Your task to perform on an android device: open app "Skype" (install if not already installed) and go to login screen Image 0: 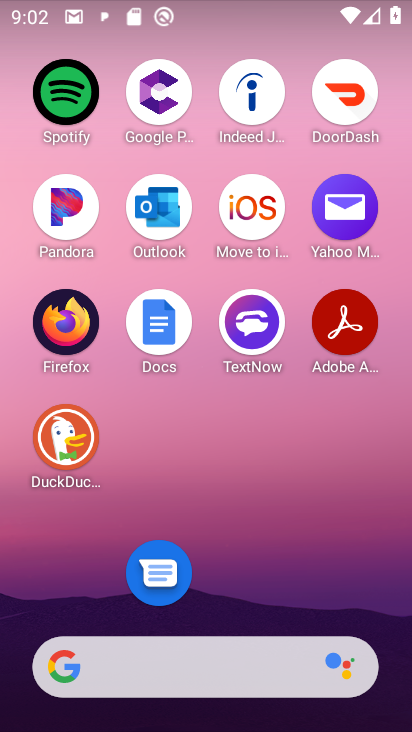
Step 0: drag from (230, 586) to (267, 217)
Your task to perform on an android device: open app "Skype" (install if not already installed) and go to login screen Image 1: 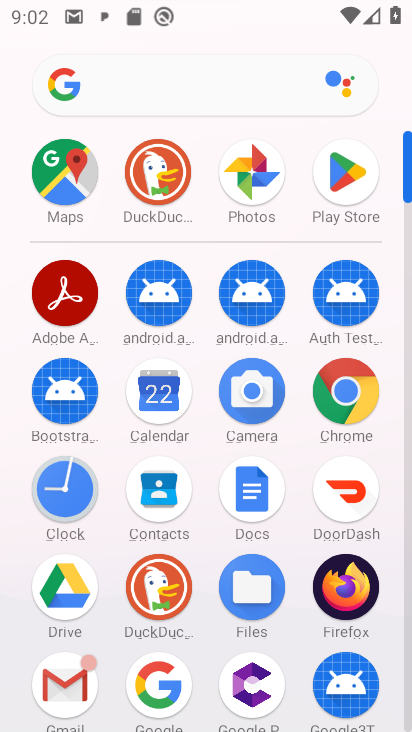
Step 1: click (369, 176)
Your task to perform on an android device: open app "Skype" (install if not already installed) and go to login screen Image 2: 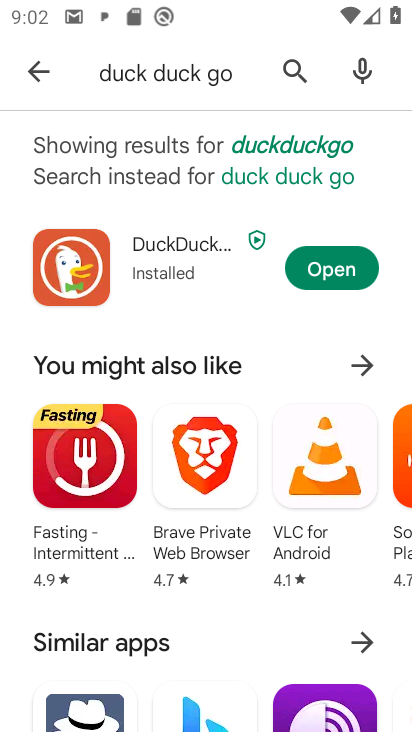
Step 2: click (143, 74)
Your task to perform on an android device: open app "Skype" (install if not already installed) and go to login screen Image 3: 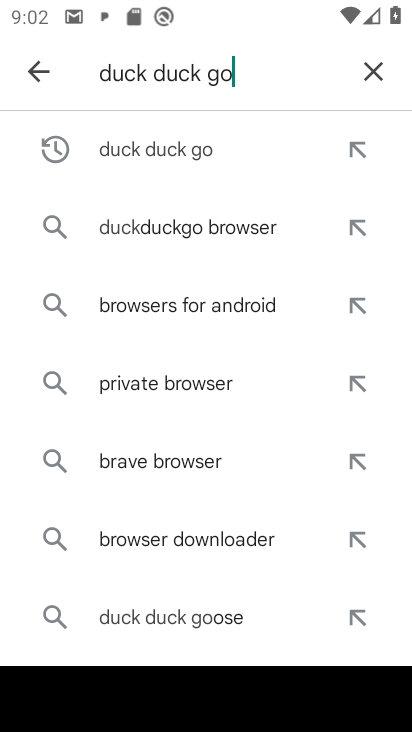
Step 3: click (369, 72)
Your task to perform on an android device: open app "Skype" (install if not already installed) and go to login screen Image 4: 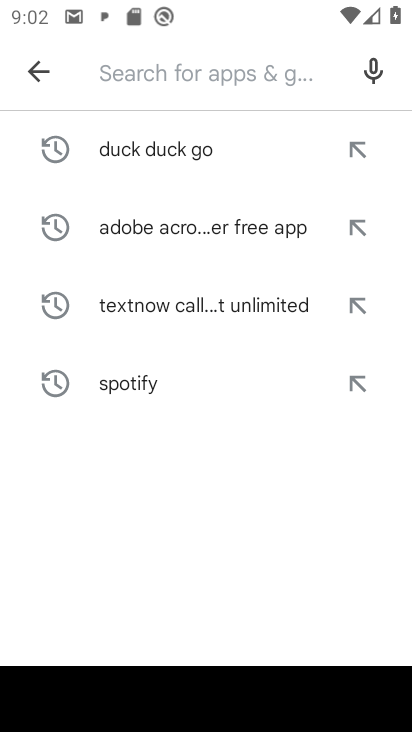
Step 4: type "Skype"
Your task to perform on an android device: open app "Skype" (install if not already installed) and go to login screen Image 5: 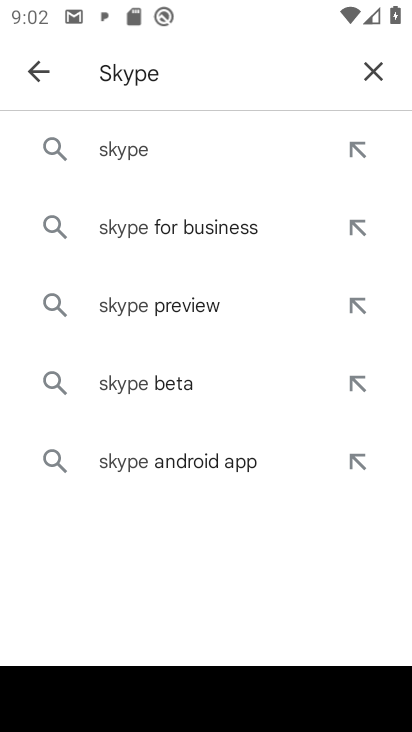
Step 5: click (150, 150)
Your task to perform on an android device: open app "Skype" (install if not already installed) and go to login screen Image 6: 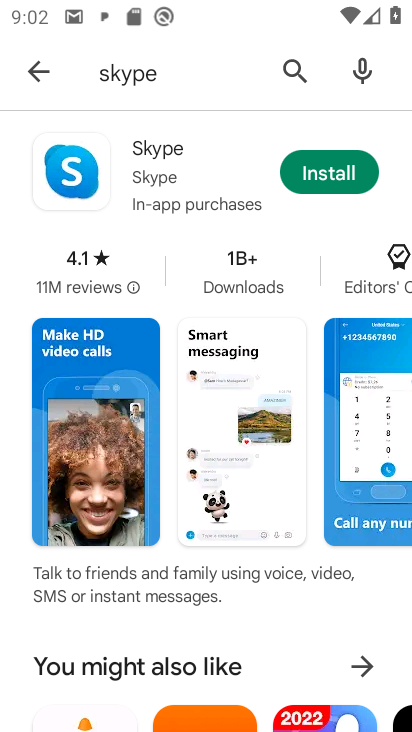
Step 6: click (325, 172)
Your task to perform on an android device: open app "Skype" (install if not already installed) and go to login screen Image 7: 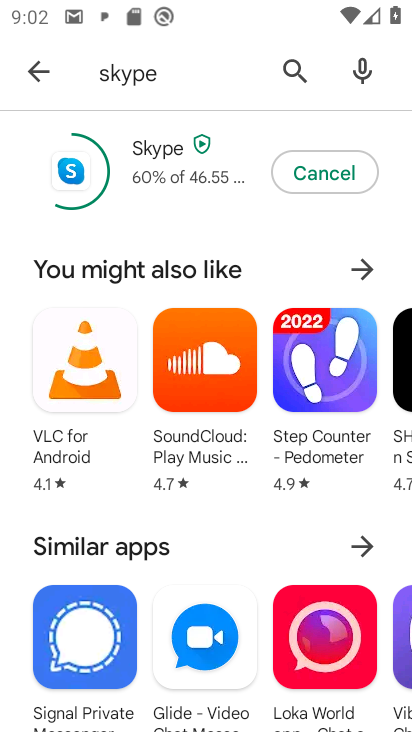
Step 7: drag from (80, 163) to (220, 278)
Your task to perform on an android device: open app "Skype" (install if not already installed) and go to login screen Image 8: 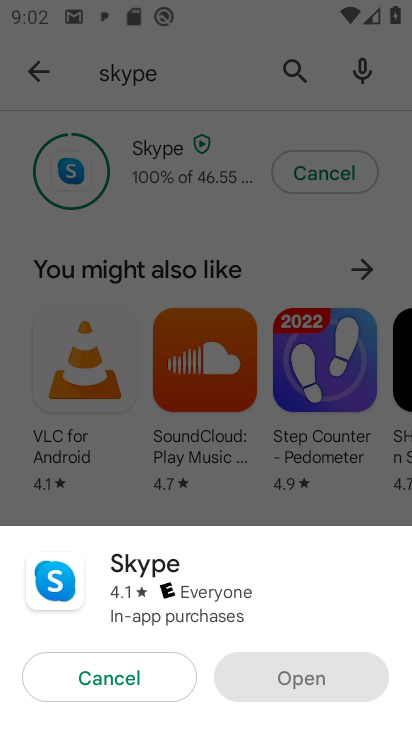
Step 8: click (128, 221)
Your task to perform on an android device: open app "Skype" (install if not already installed) and go to login screen Image 9: 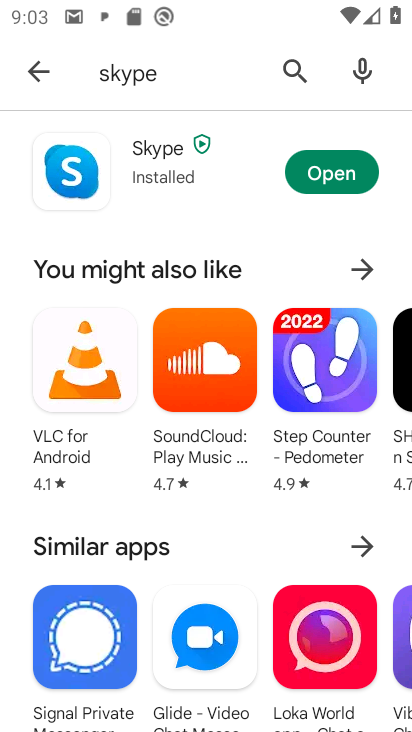
Step 9: click (332, 174)
Your task to perform on an android device: open app "Skype" (install if not already installed) and go to login screen Image 10: 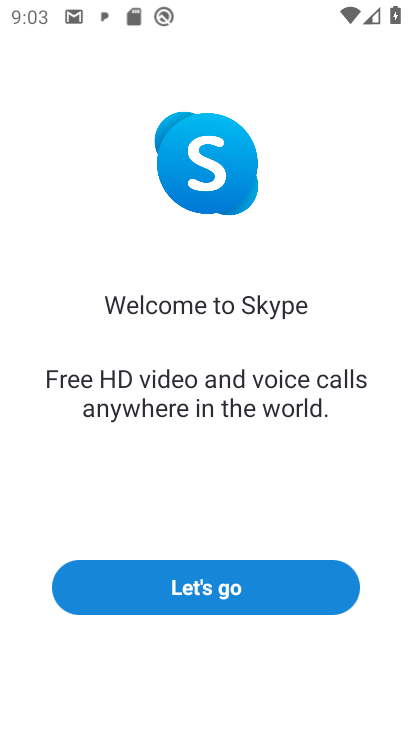
Step 10: click (261, 593)
Your task to perform on an android device: open app "Skype" (install if not already installed) and go to login screen Image 11: 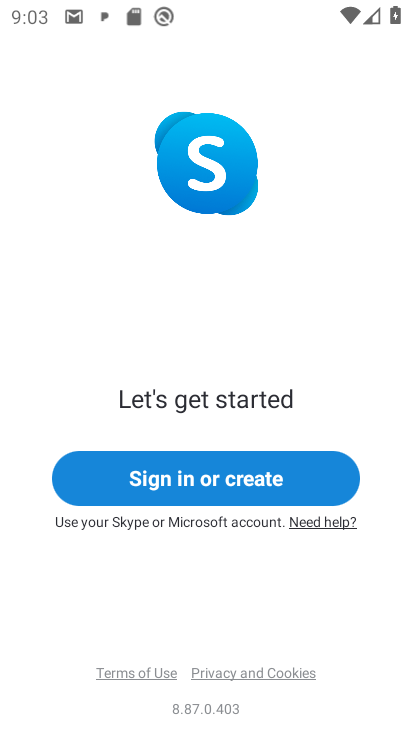
Step 11: click (132, 478)
Your task to perform on an android device: open app "Skype" (install if not already installed) and go to login screen Image 12: 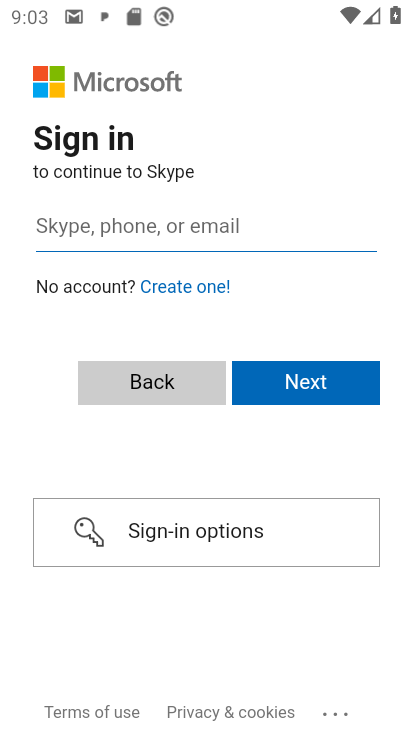
Step 12: task complete